Your task to perform on an android device: Open sound settings Image 0: 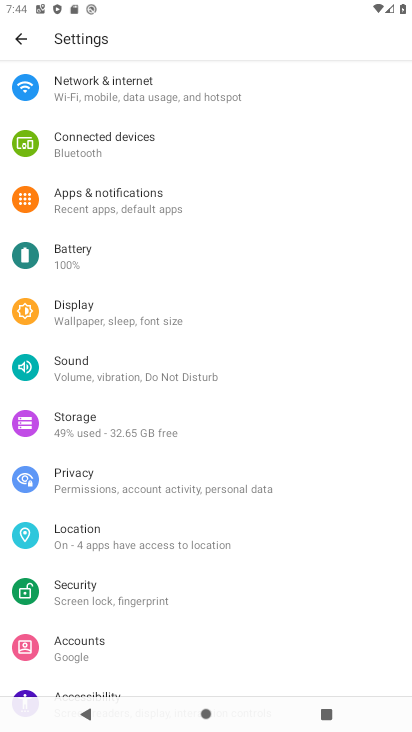
Step 0: click (148, 368)
Your task to perform on an android device: Open sound settings Image 1: 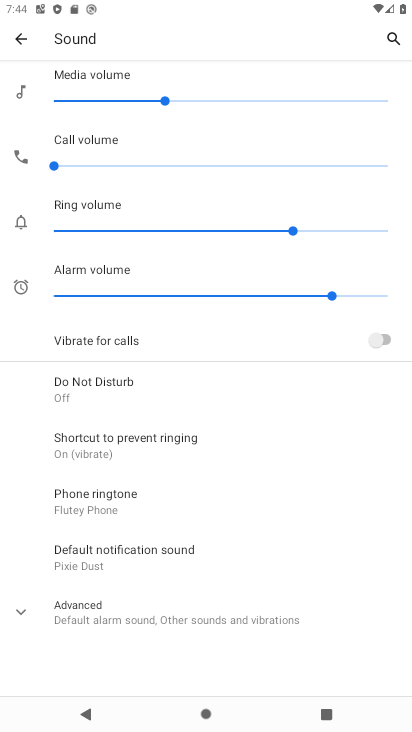
Step 1: task complete